Your task to perform on an android device: turn off javascript in the chrome app Image 0: 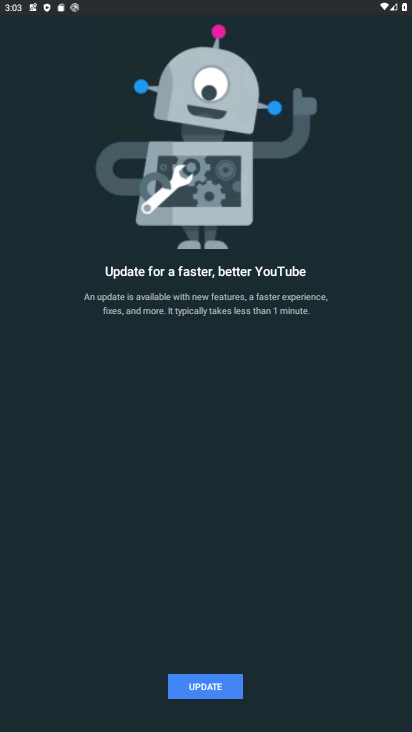
Step 0: press home button
Your task to perform on an android device: turn off javascript in the chrome app Image 1: 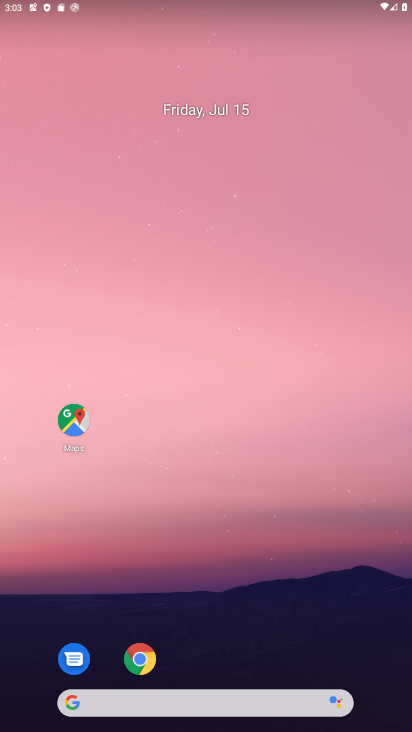
Step 1: click (141, 663)
Your task to perform on an android device: turn off javascript in the chrome app Image 2: 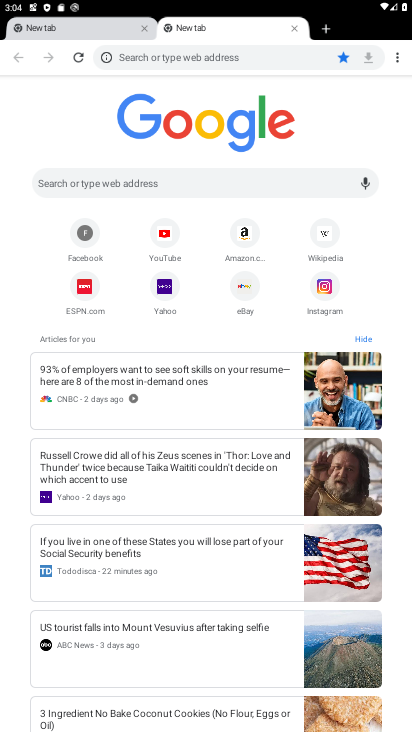
Step 2: click (393, 65)
Your task to perform on an android device: turn off javascript in the chrome app Image 3: 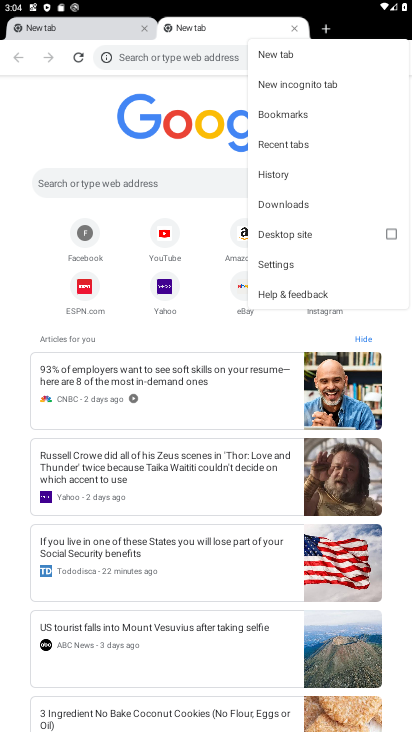
Step 3: click (273, 267)
Your task to perform on an android device: turn off javascript in the chrome app Image 4: 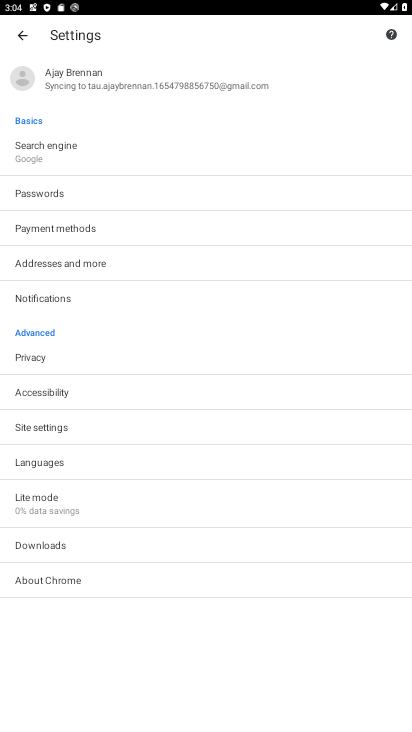
Step 4: click (33, 431)
Your task to perform on an android device: turn off javascript in the chrome app Image 5: 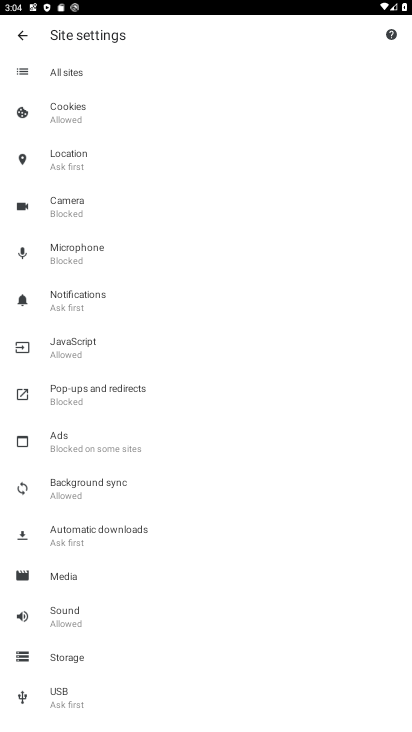
Step 5: click (52, 343)
Your task to perform on an android device: turn off javascript in the chrome app Image 6: 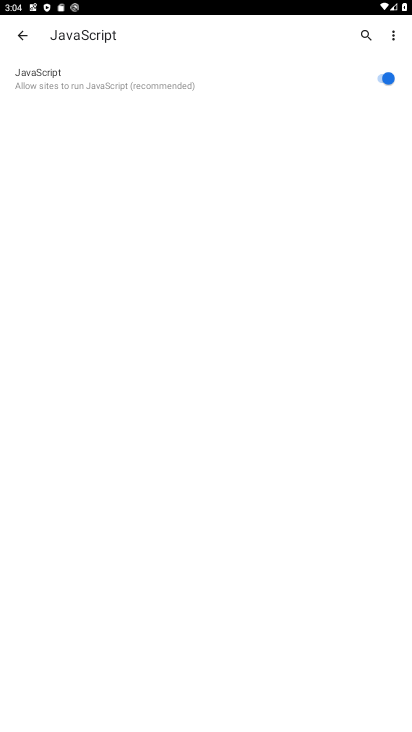
Step 6: click (381, 72)
Your task to perform on an android device: turn off javascript in the chrome app Image 7: 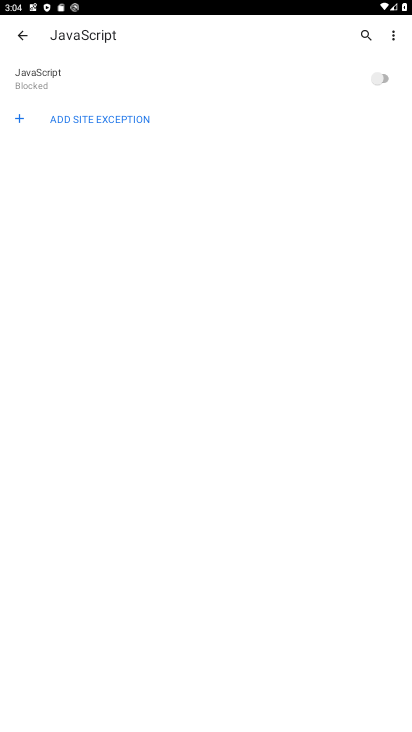
Step 7: task complete